Your task to perform on an android device: Open Google Image 0: 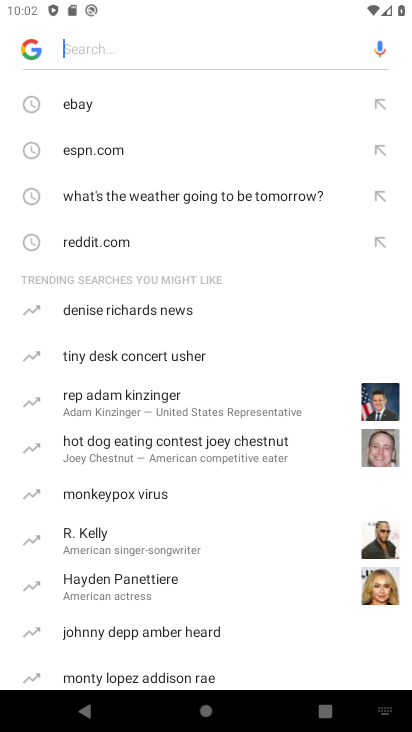
Step 0: press home button
Your task to perform on an android device: Open Google Image 1: 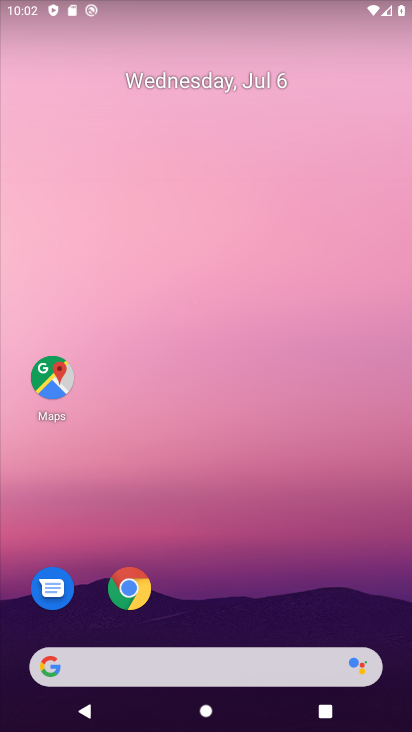
Step 1: drag from (216, 667) to (334, 122)
Your task to perform on an android device: Open Google Image 2: 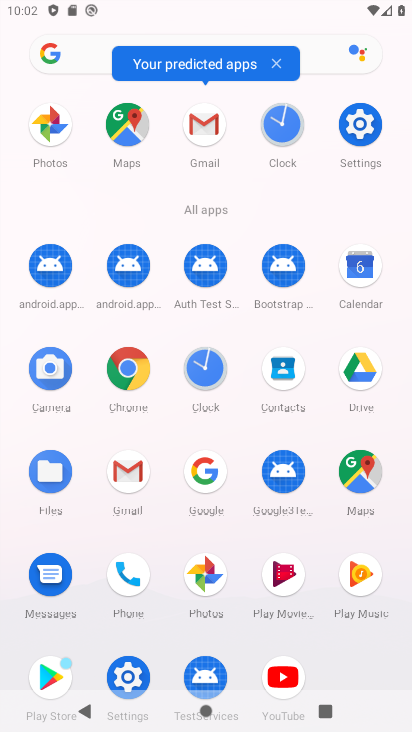
Step 2: click (207, 477)
Your task to perform on an android device: Open Google Image 3: 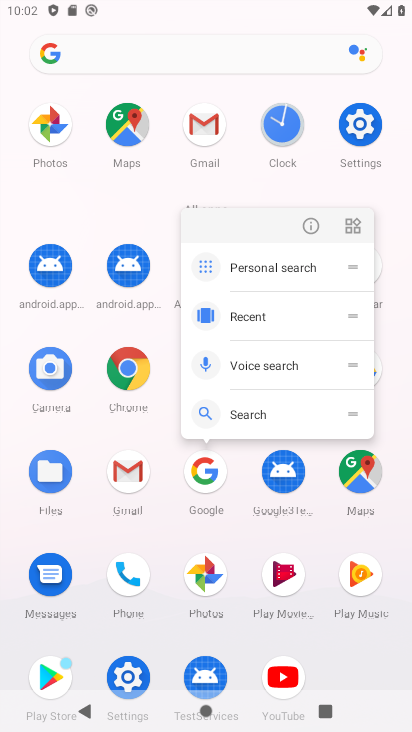
Step 3: click (214, 464)
Your task to perform on an android device: Open Google Image 4: 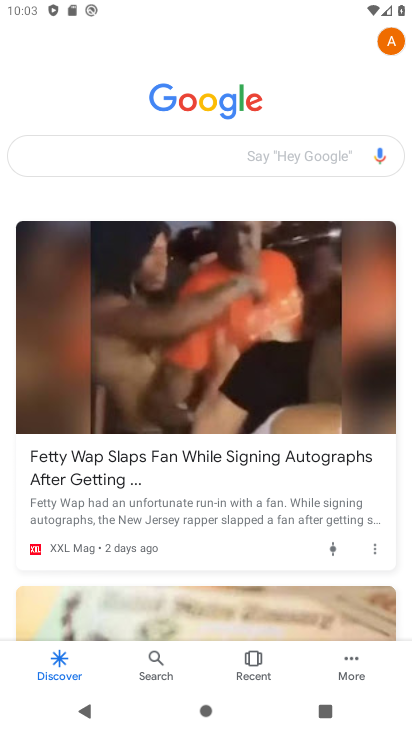
Step 4: task complete